Your task to perform on an android device: turn off location history Image 0: 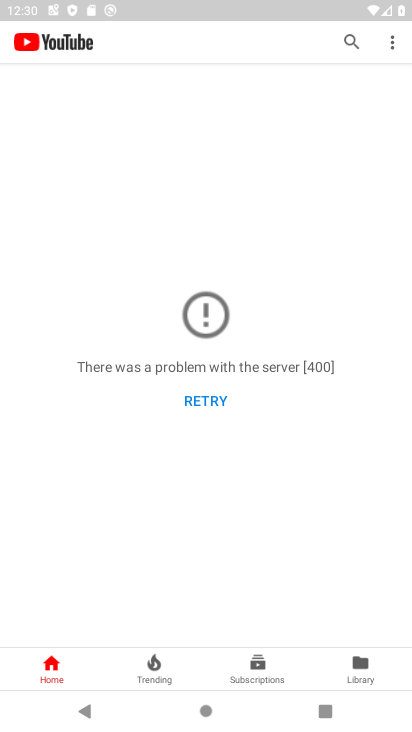
Step 0: press home button
Your task to perform on an android device: turn off location history Image 1: 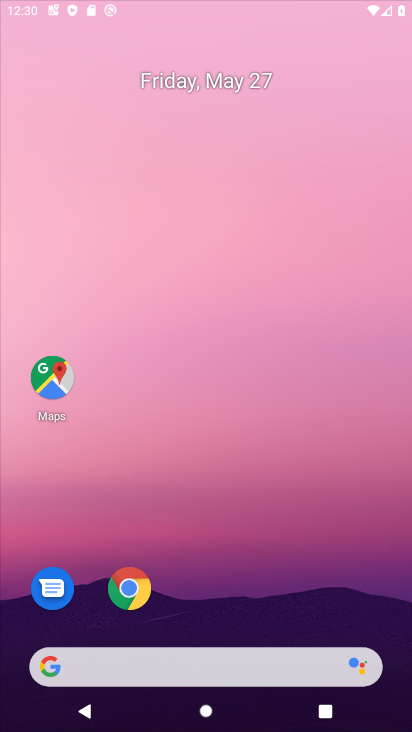
Step 1: drag from (139, 728) to (181, 5)
Your task to perform on an android device: turn off location history Image 2: 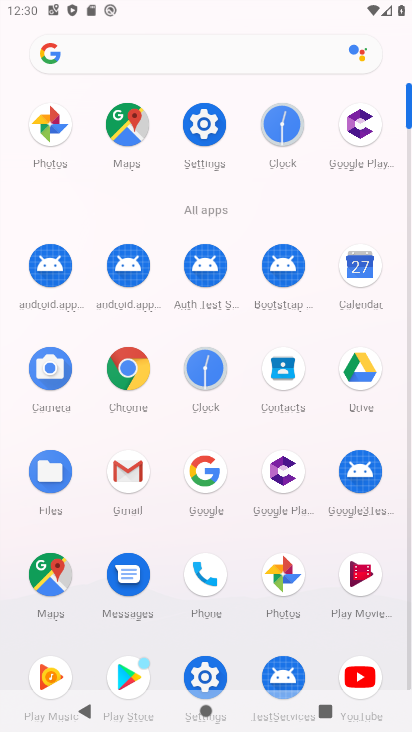
Step 2: click (208, 126)
Your task to perform on an android device: turn off location history Image 3: 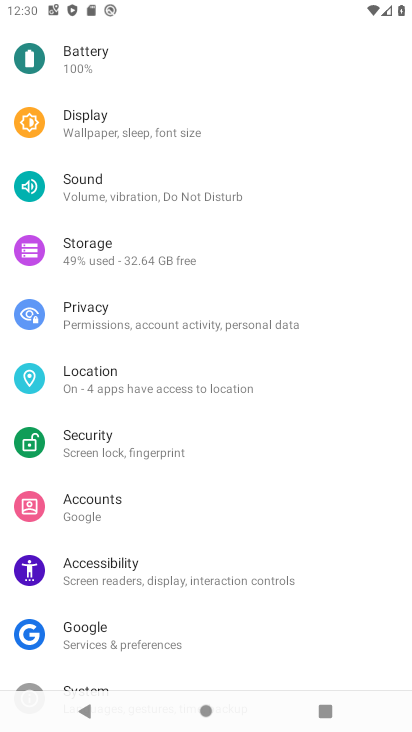
Step 3: click (112, 384)
Your task to perform on an android device: turn off location history Image 4: 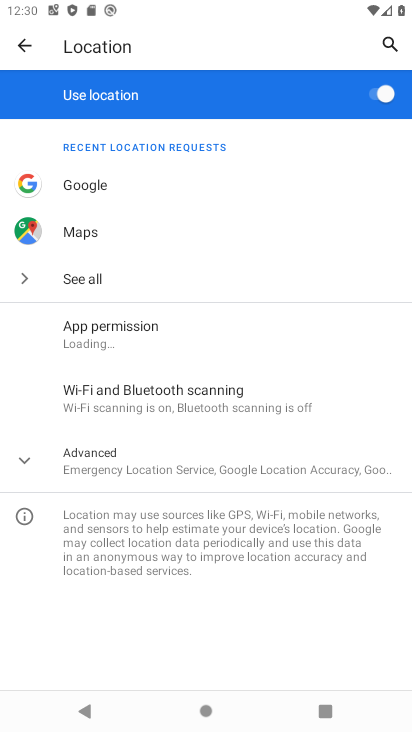
Step 4: click (82, 461)
Your task to perform on an android device: turn off location history Image 5: 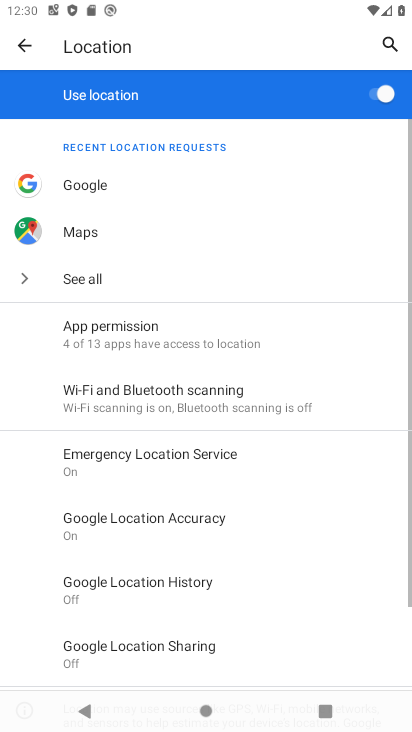
Step 5: click (200, 581)
Your task to perform on an android device: turn off location history Image 6: 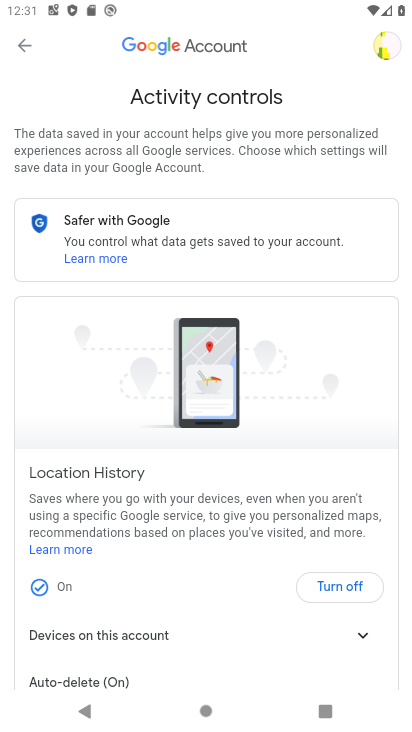
Step 6: click (350, 596)
Your task to perform on an android device: turn off location history Image 7: 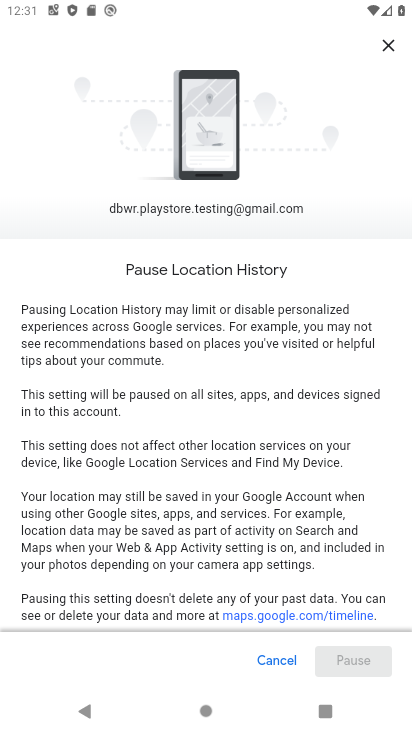
Step 7: drag from (365, 508) to (374, 240)
Your task to perform on an android device: turn off location history Image 8: 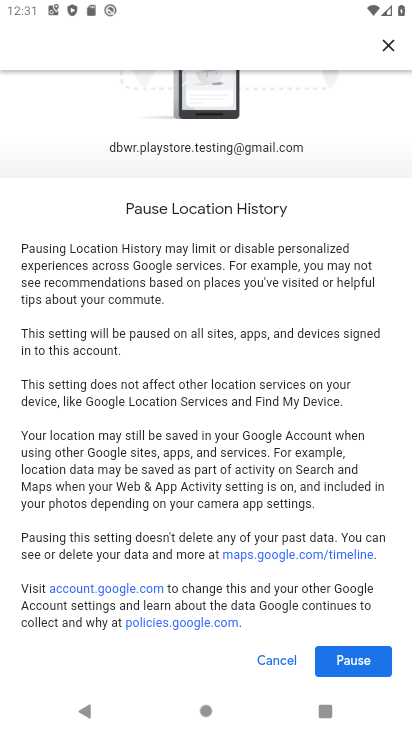
Step 8: drag from (346, 496) to (355, 186)
Your task to perform on an android device: turn off location history Image 9: 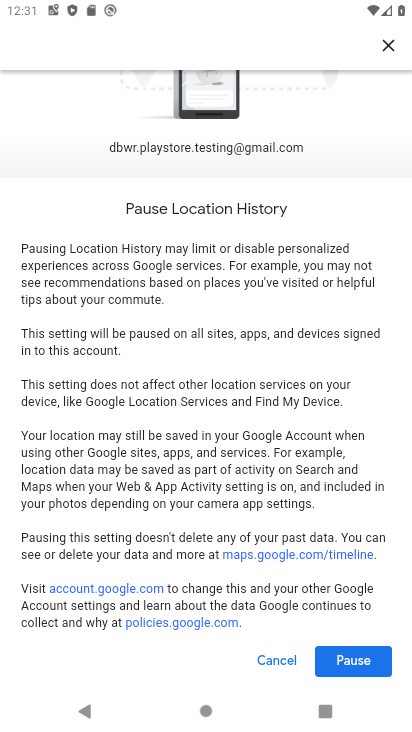
Step 9: click (352, 664)
Your task to perform on an android device: turn off location history Image 10: 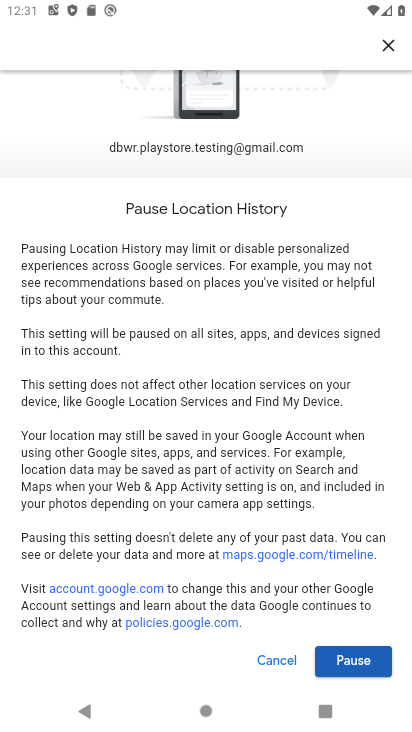
Step 10: click (371, 670)
Your task to perform on an android device: turn off location history Image 11: 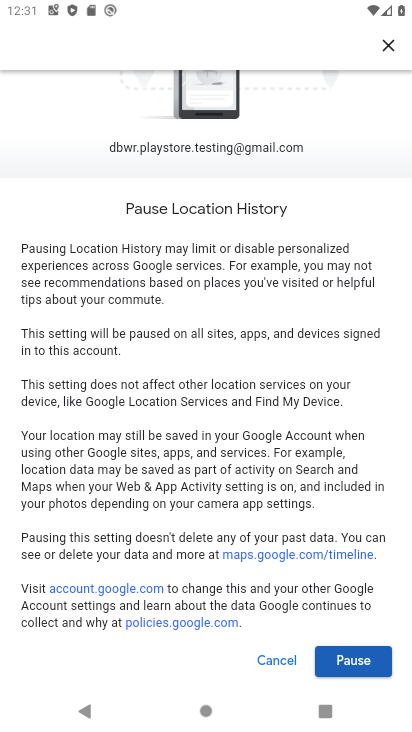
Step 11: drag from (348, 630) to (339, 344)
Your task to perform on an android device: turn off location history Image 12: 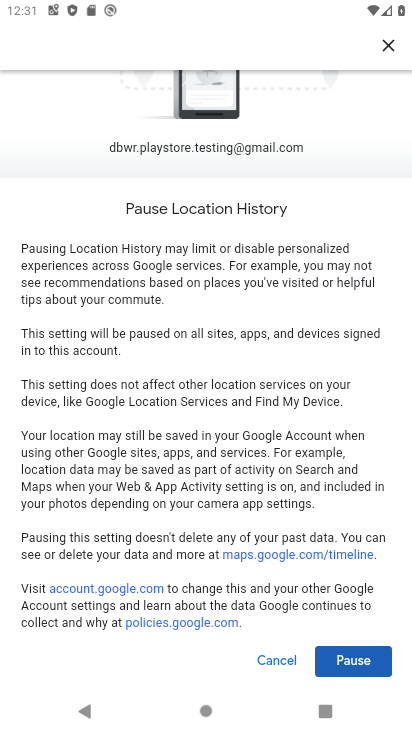
Step 12: click (342, 659)
Your task to perform on an android device: turn off location history Image 13: 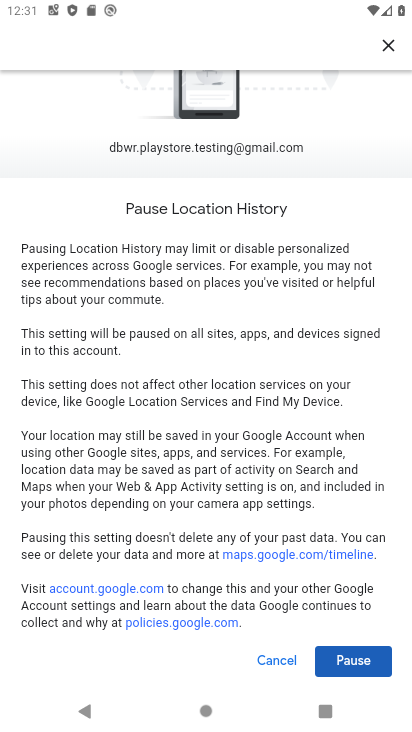
Step 13: drag from (276, 619) to (241, 356)
Your task to perform on an android device: turn off location history Image 14: 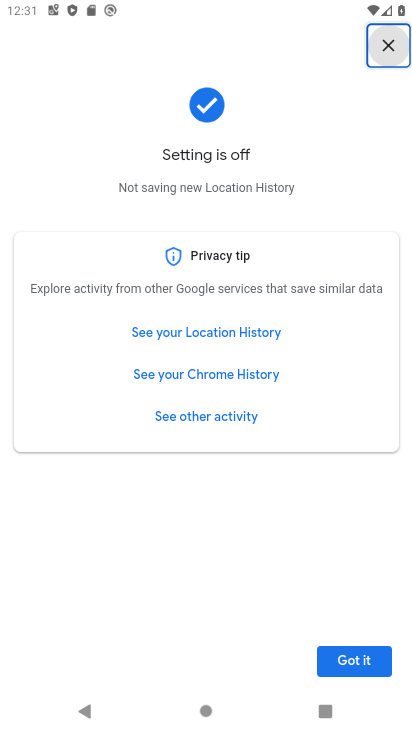
Step 14: click (372, 674)
Your task to perform on an android device: turn off location history Image 15: 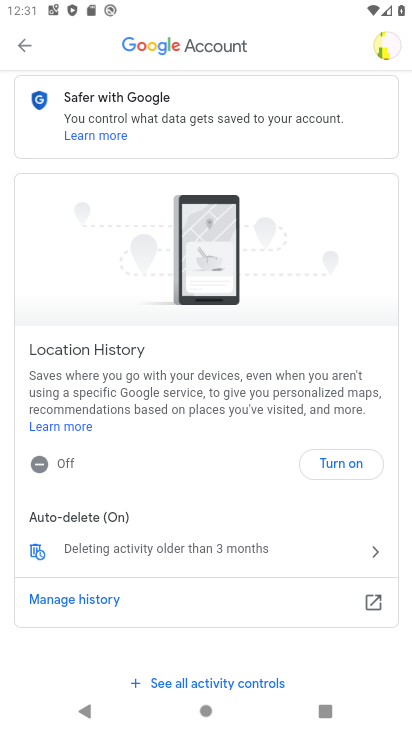
Step 15: task complete